Your task to perform on an android device: star an email in the gmail app Image 0: 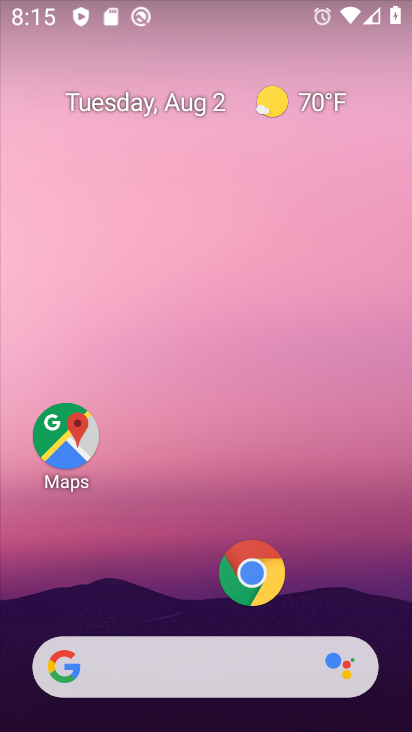
Step 0: press home button
Your task to perform on an android device: star an email in the gmail app Image 1: 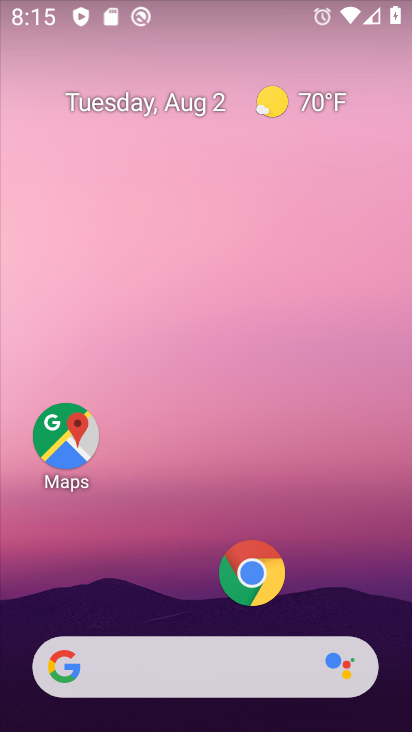
Step 1: drag from (180, 608) to (183, 34)
Your task to perform on an android device: star an email in the gmail app Image 2: 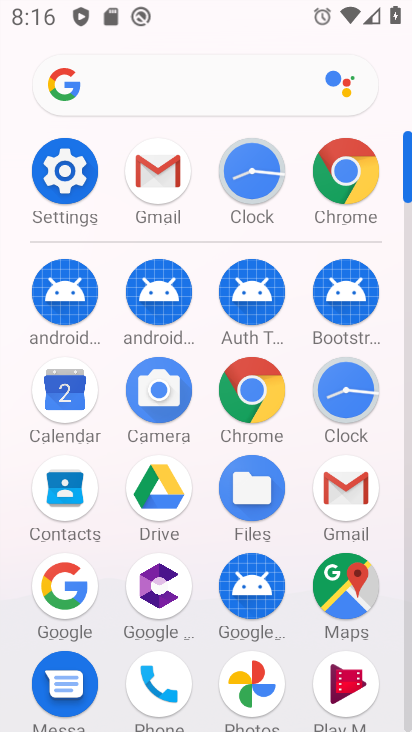
Step 2: click (345, 477)
Your task to perform on an android device: star an email in the gmail app Image 3: 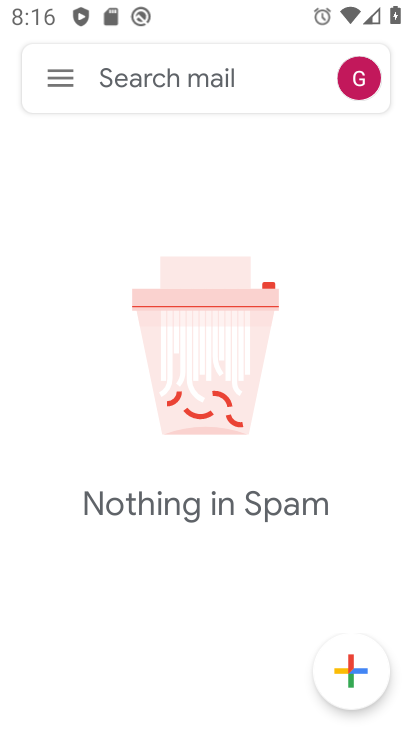
Step 3: click (52, 72)
Your task to perform on an android device: star an email in the gmail app Image 4: 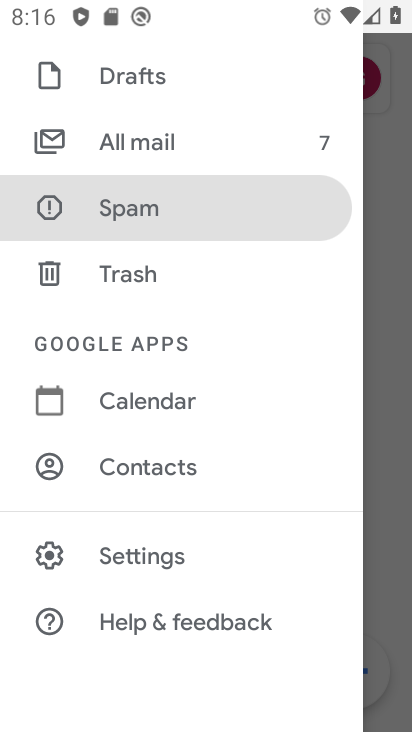
Step 4: click (82, 133)
Your task to perform on an android device: star an email in the gmail app Image 5: 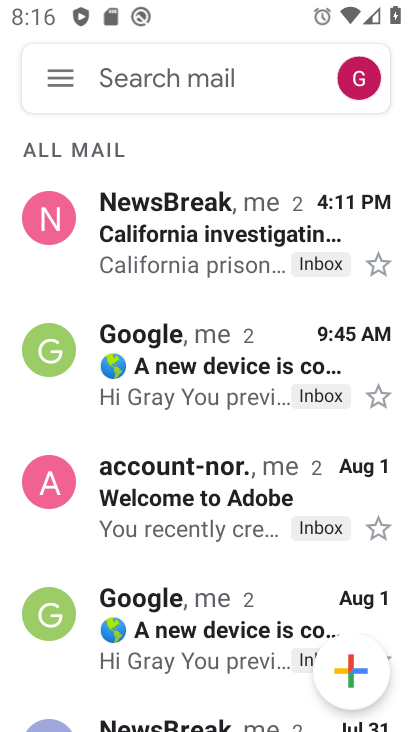
Step 5: click (376, 392)
Your task to perform on an android device: star an email in the gmail app Image 6: 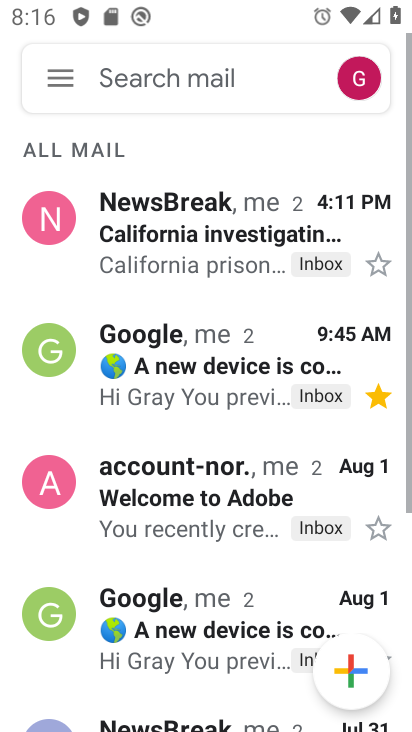
Step 6: task complete